Your task to perform on an android device: Go to Amazon Image 0: 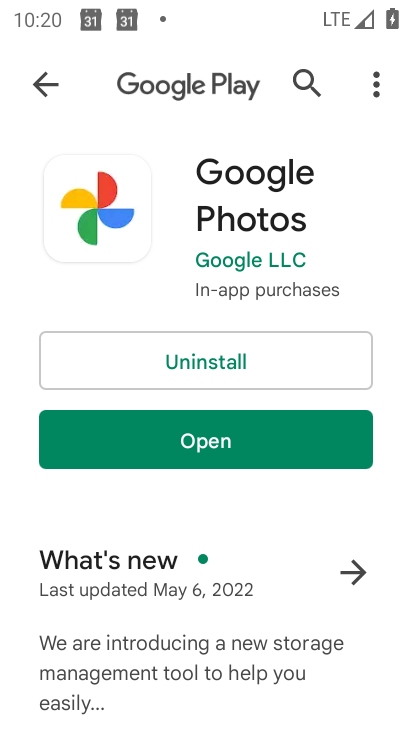
Step 0: press home button
Your task to perform on an android device: Go to Amazon Image 1: 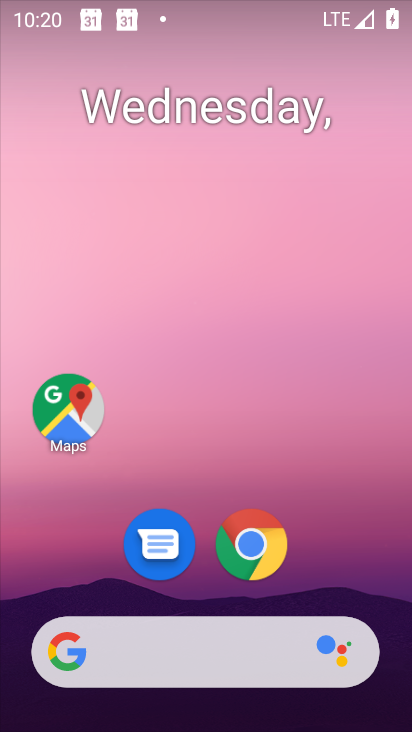
Step 1: click (245, 562)
Your task to perform on an android device: Go to Amazon Image 2: 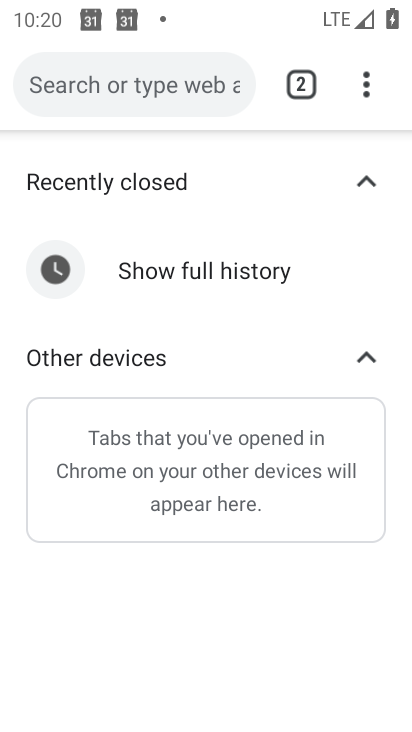
Step 2: click (211, 86)
Your task to perform on an android device: Go to Amazon Image 3: 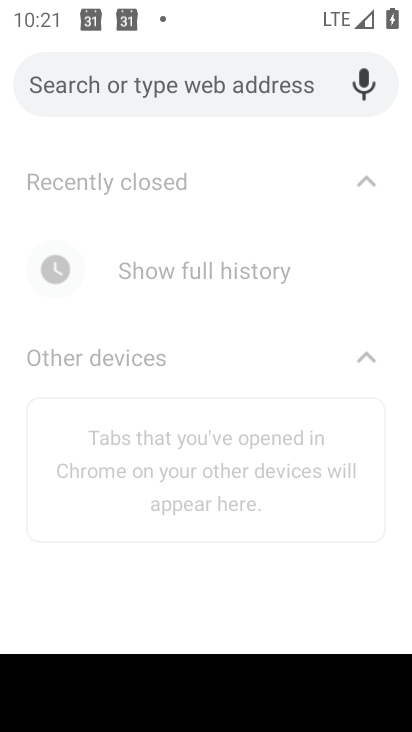
Step 3: type "amazon"
Your task to perform on an android device: Go to Amazon Image 4: 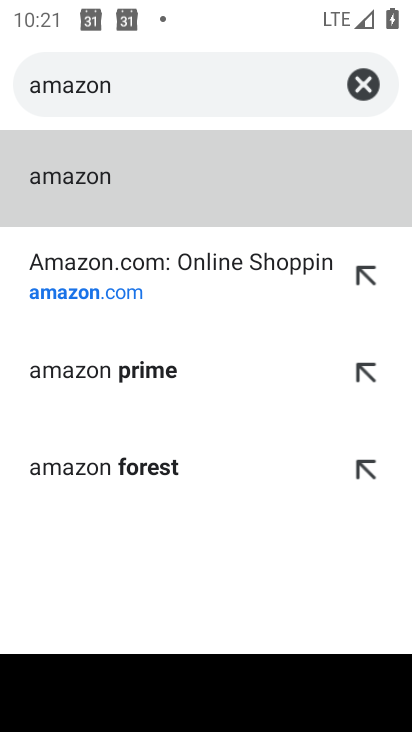
Step 4: click (169, 174)
Your task to perform on an android device: Go to Amazon Image 5: 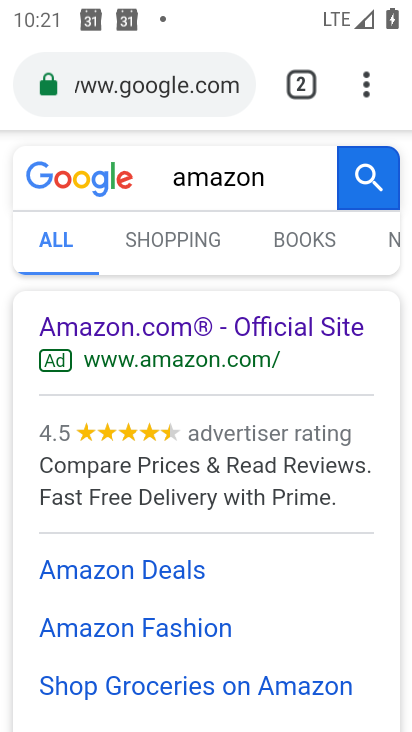
Step 5: click (107, 330)
Your task to perform on an android device: Go to Amazon Image 6: 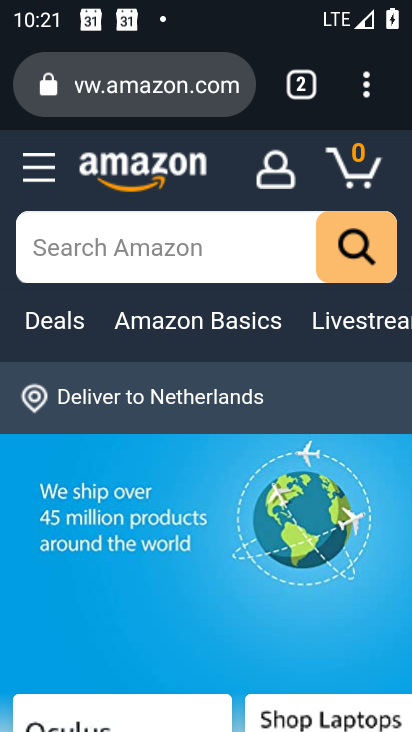
Step 6: task complete